Your task to perform on an android device: open a new tab in the chrome app Image 0: 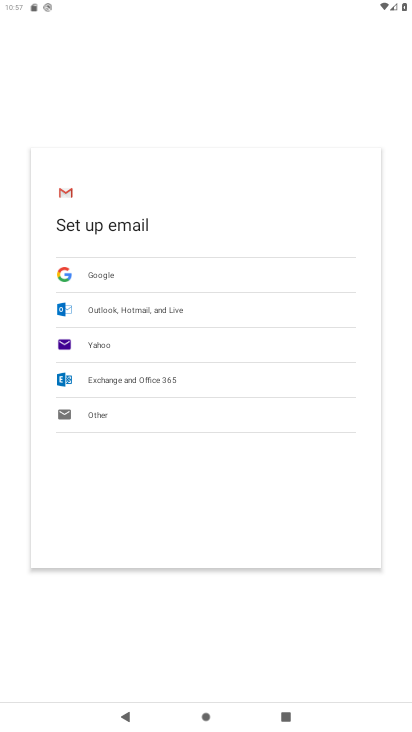
Step 0: press home button
Your task to perform on an android device: open a new tab in the chrome app Image 1: 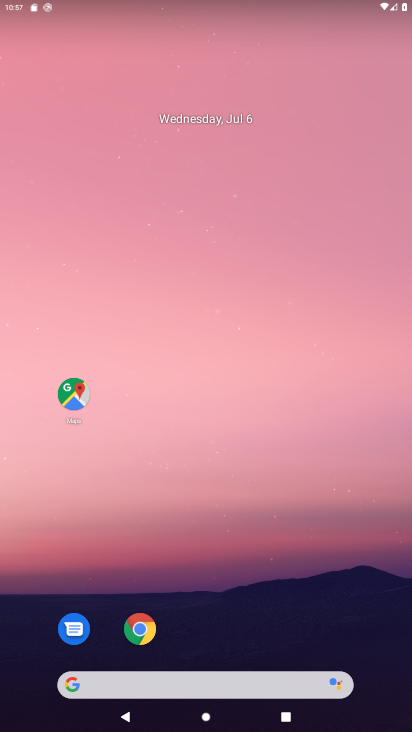
Step 1: drag from (214, 649) to (210, 1)
Your task to perform on an android device: open a new tab in the chrome app Image 2: 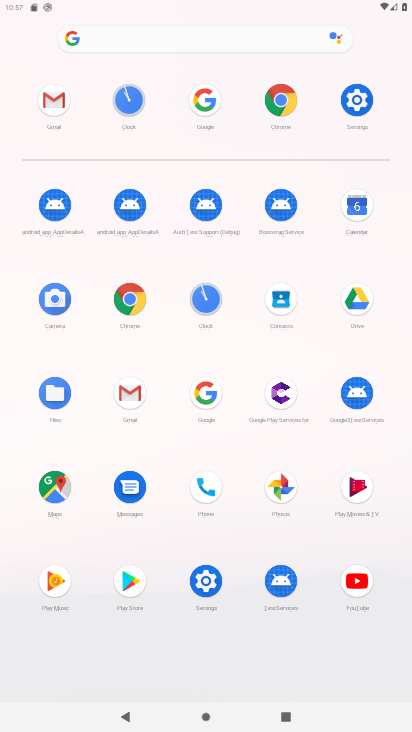
Step 2: click (275, 91)
Your task to perform on an android device: open a new tab in the chrome app Image 3: 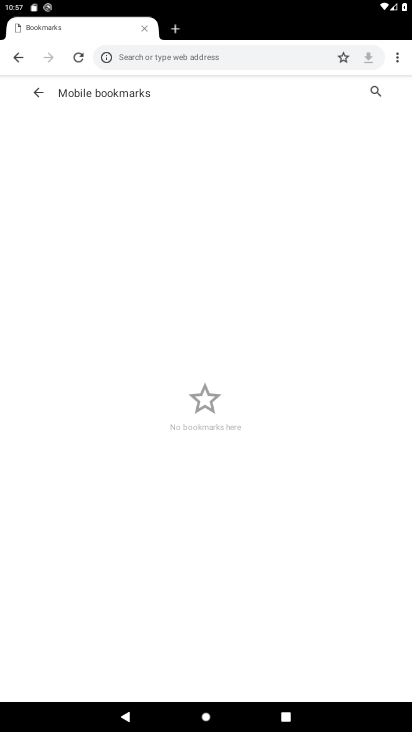
Step 3: click (397, 53)
Your task to perform on an android device: open a new tab in the chrome app Image 4: 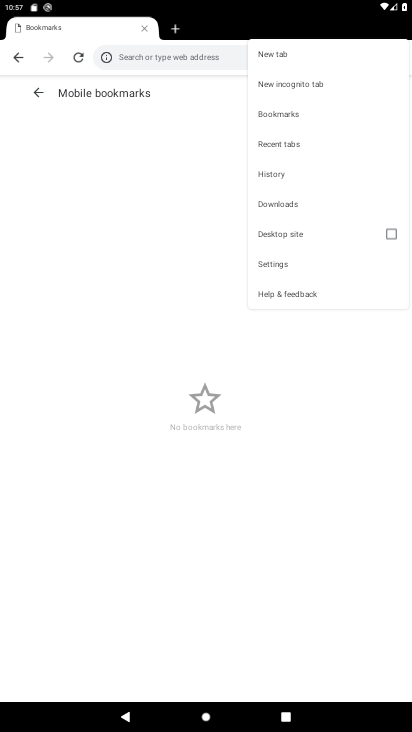
Step 4: click (283, 53)
Your task to perform on an android device: open a new tab in the chrome app Image 5: 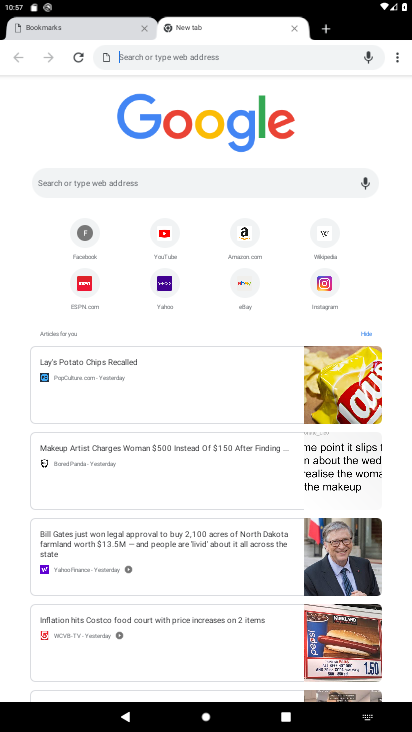
Step 5: task complete